Your task to perform on an android device: Turn off the flashlight Image 0: 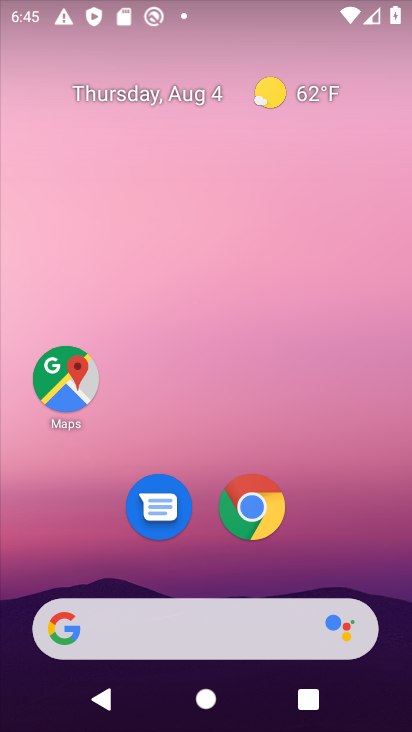
Step 0: drag from (357, 572) to (250, 44)
Your task to perform on an android device: Turn off the flashlight Image 1: 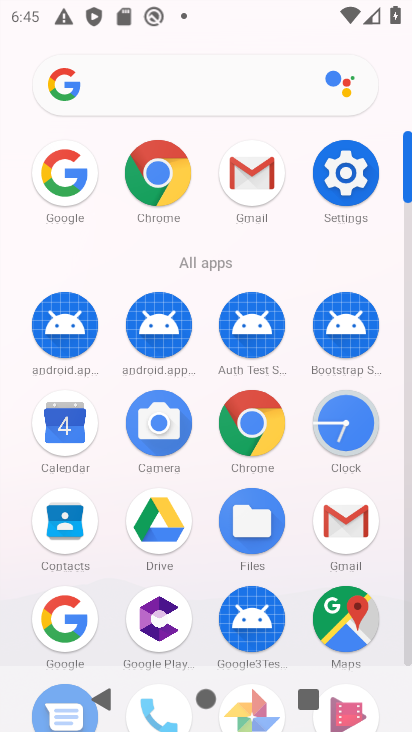
Step 1: click (338, 176)
Your task to perform on an android device: Turn off the flashlight Image 2: 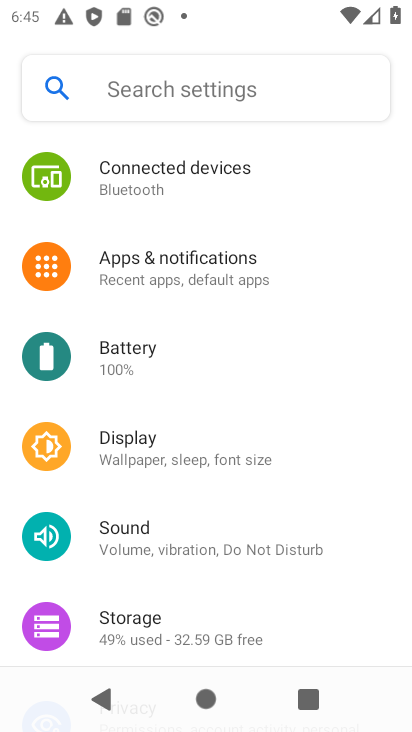
Step 2: task complete